Your task to perform on an android device: Go to notification settings Image 0: 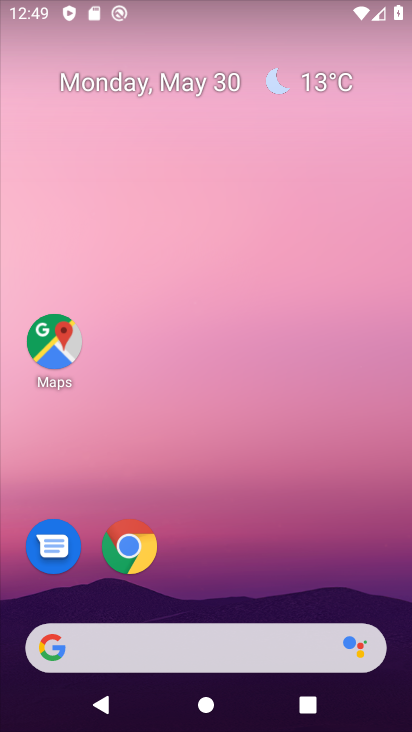
Step 0: press home button
Your task to perform on an android device: Go to notification settings Image 1: 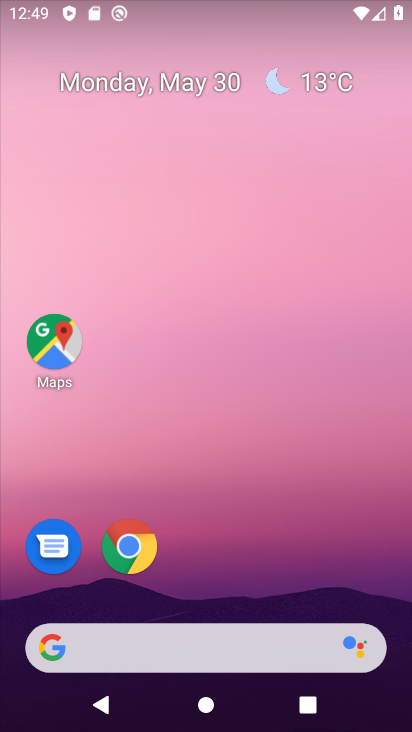
Step 1: drag from (225, 606) to (227, 182)
Your task to perform on an android device: Go to notification settings Image 2: 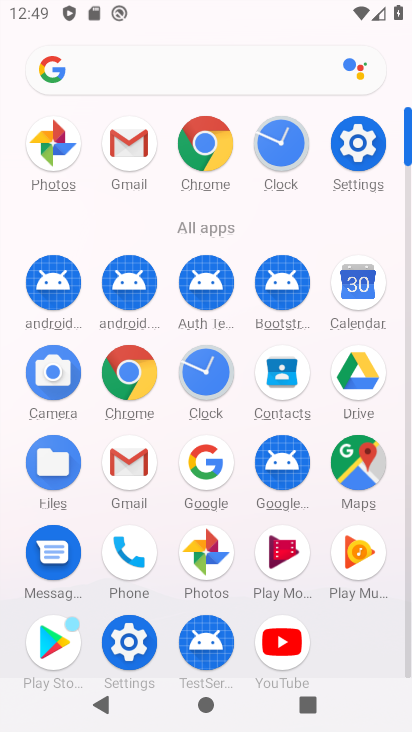
Step 2: click (360, 146)
Your task to perform on an android device: Go to notification settings Image 3: 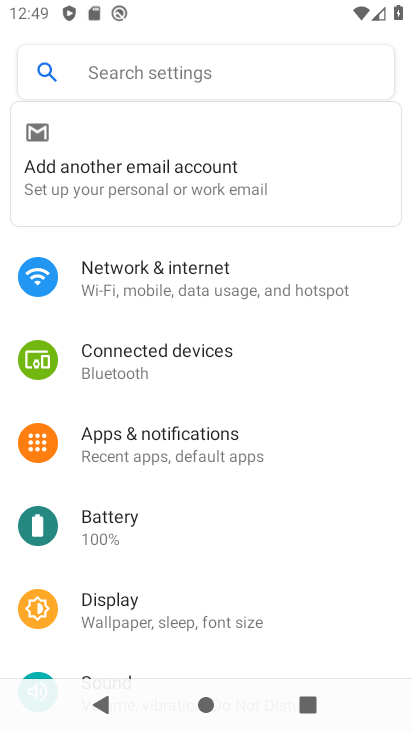
Step 3: click (155, 441)
Your task to perform on an android device: Go to notification settings Image 4: 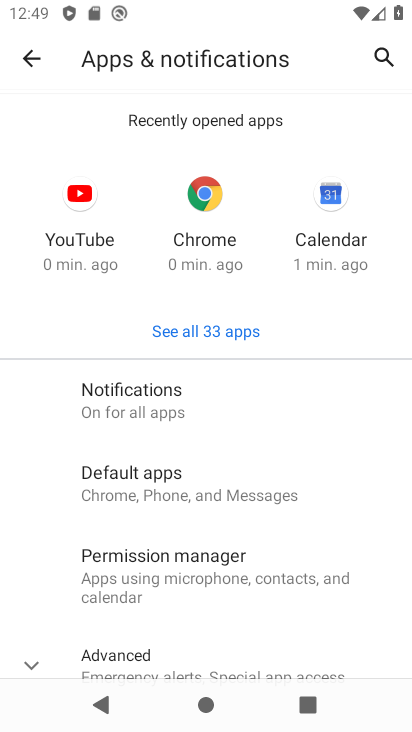
Step 4: click (127, 394)
Your task to perform on an android device: Go to notification settings Image 5: 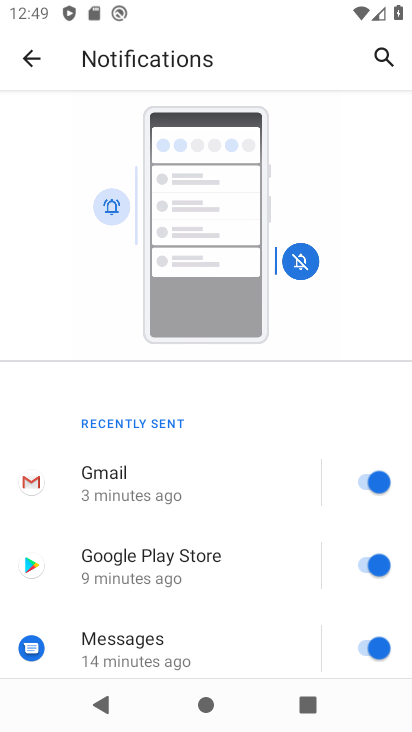
Step 5: task complete